Your task to perform on an android device: change notifications settings Image 0: 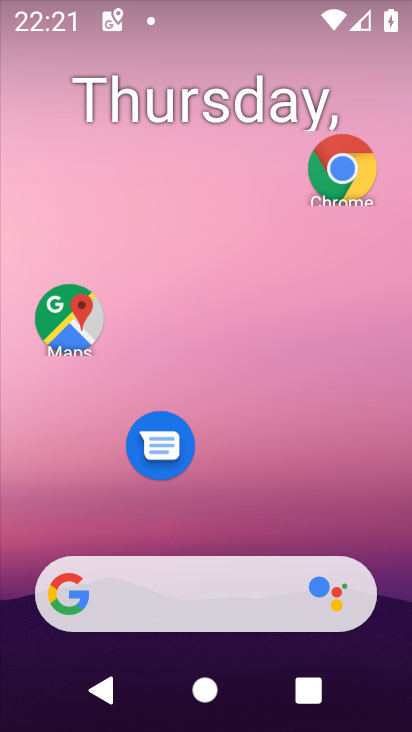
Step 0: drag from (200, 559) to (231, 37)
Your task to perform on an android device: change notifications settings Image 1: 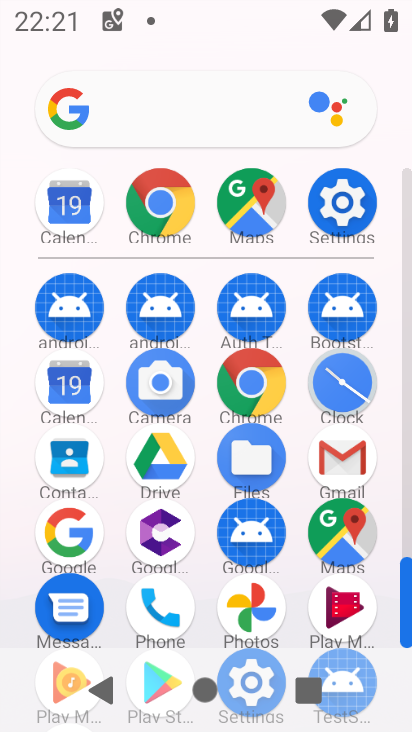
Step 1: click (324, 210)
Your task to perform on an android device: change notifications settings Image 2: 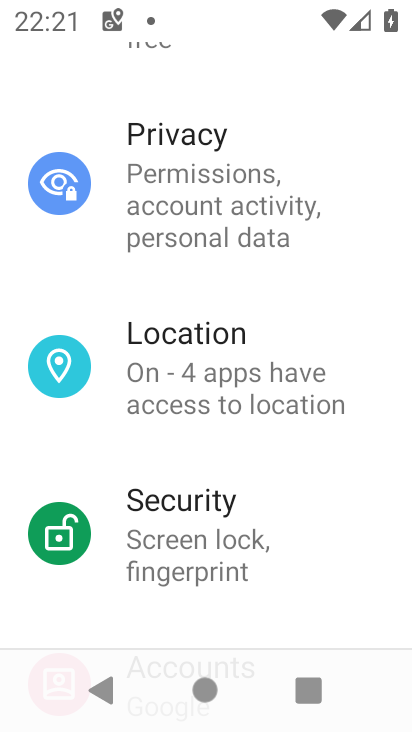
Step 2: drag from (202, 562) to (251, 191)
Your task to perform on an android device: change notifications settings Image 3: 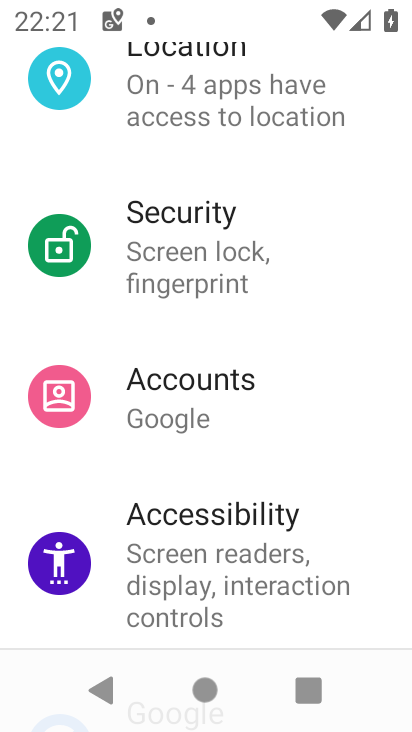
Step 3: drag from (204, 169) to (344, 672)
Your task to perform on an android device: change notifications settings Image 4: 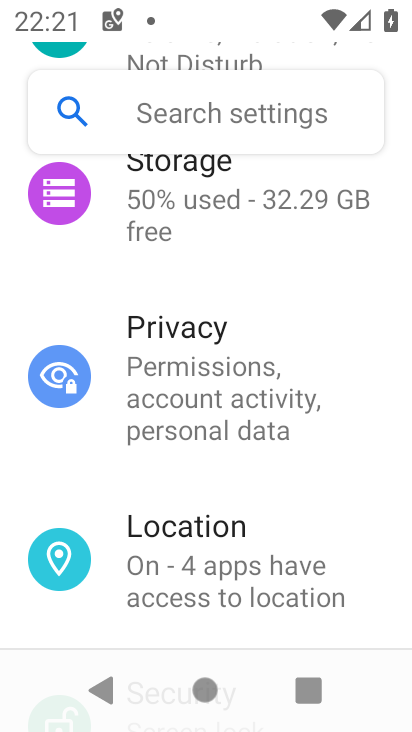
Step 4: drag from (217, 211) to (303, 641)
Your task to perform on an android device: change notifications settings Image 5: 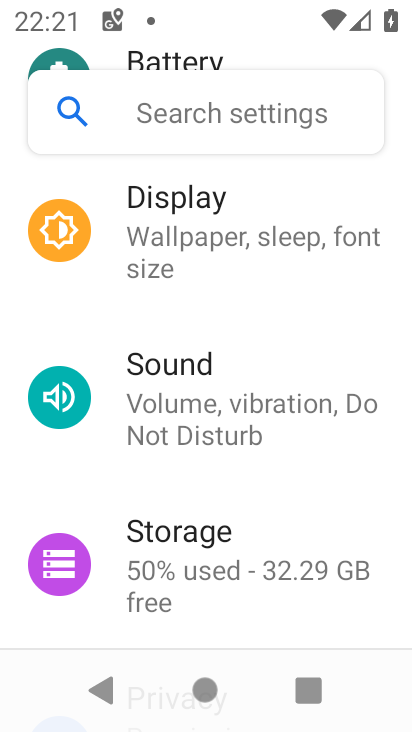
Step 5: drag from (225, 248) to (323, 682)
Your task to perform on an android device: change notifications settings Image 6: 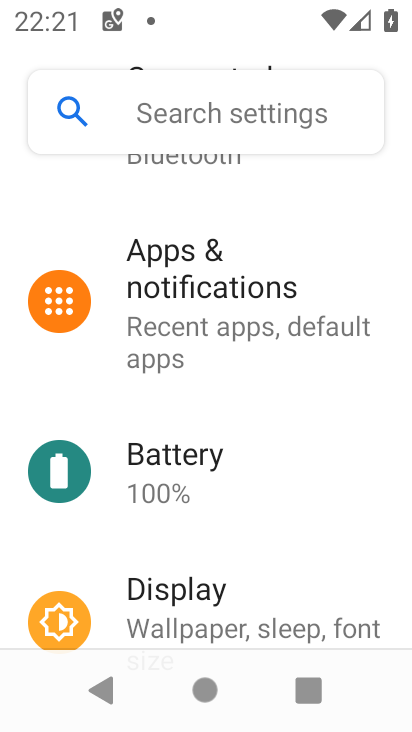
Step 6: drag from (226, 231) to (285, 666)
Your task to perform on an android device: change notifications settings Image 7: 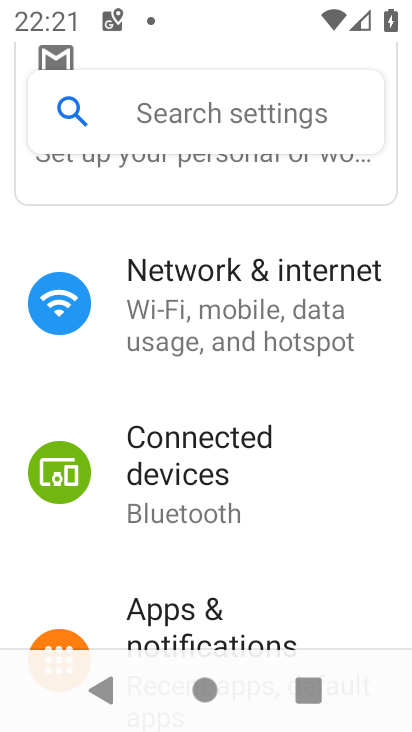
Step 7: click (211, 614)
Your task to perform on an android device: change notifications settings Image 8: 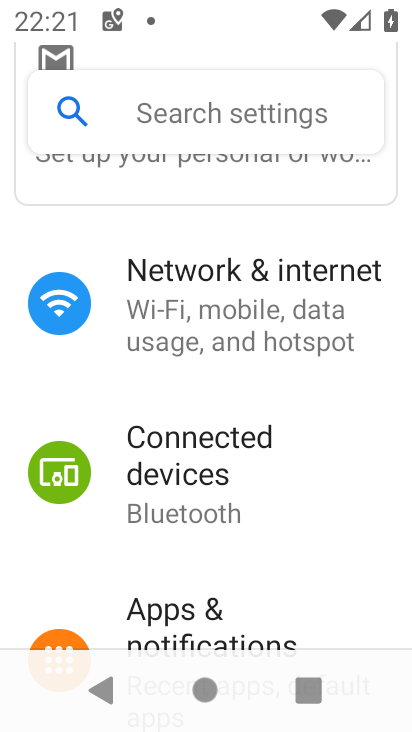
Step 8: drag from (196, 601) to (232, 176)
Your task to perform on an android device: change notifications settings Image 9: 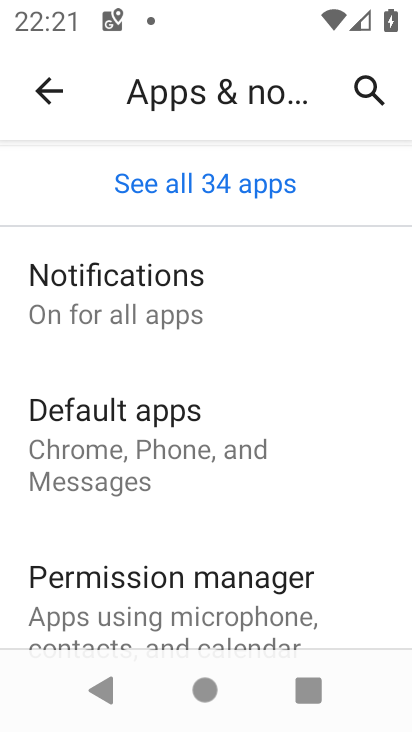
Step 9: click (182, 337)
Your task to perform on an android device: change notifications settings Image 10: 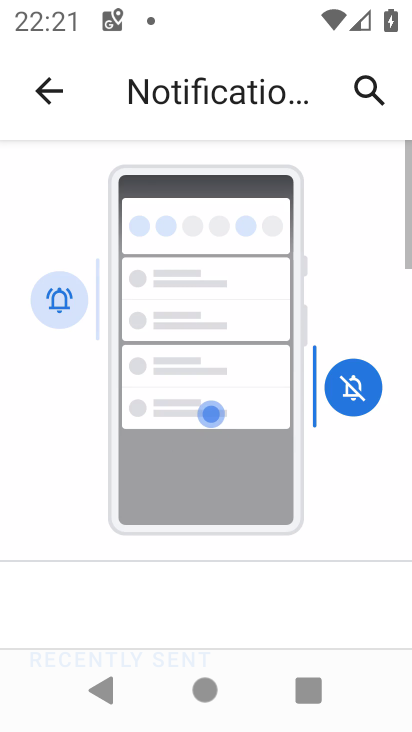
Step 10: drag from (227, 492) to (314, 142)
Your task to perform on an android device: change notifications settings Image 11: 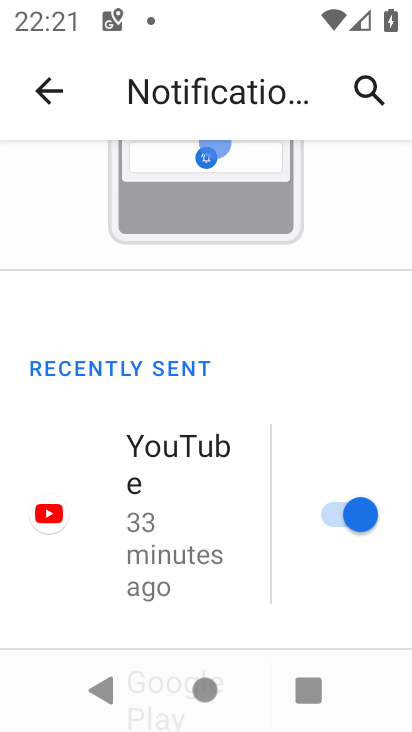
Step 11: drag from (266, 552) to (329, 146)
Your task to perform on an android device: change notifications settings Image 12: 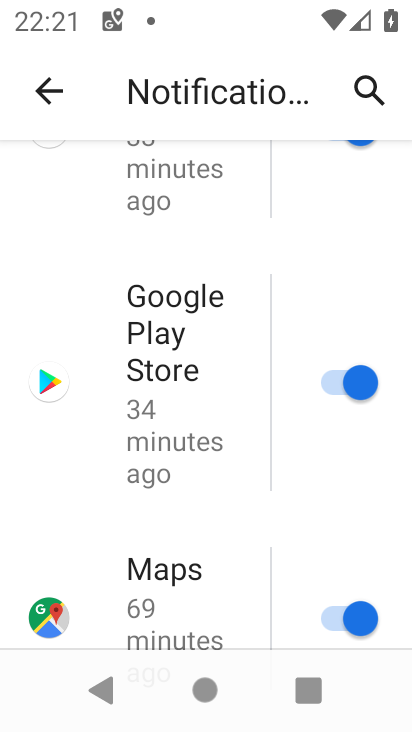
Step 12: drag from (250, 593) to (315, 121)
Your task to perform on an android device: change notifications settings Image 13: 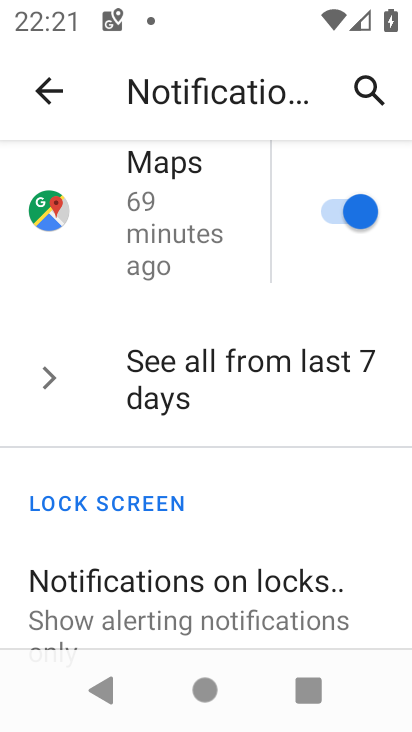
Step 13: click (341, 215)
Your task to perform on an android device: change notifications settings Image 14: 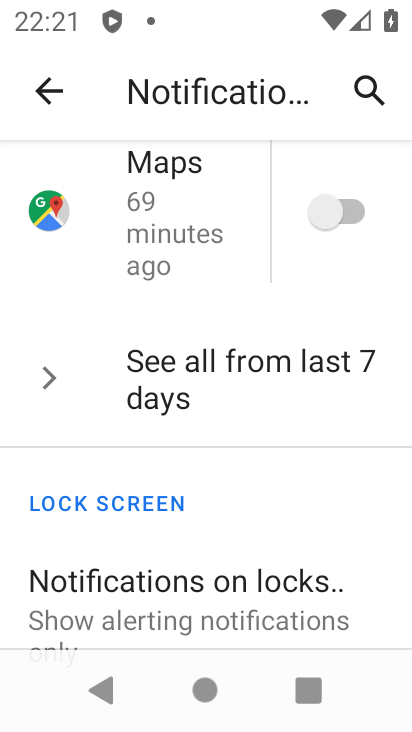
Step 14: task complete